Your task to perform on an android device: check out phone information Image 0: 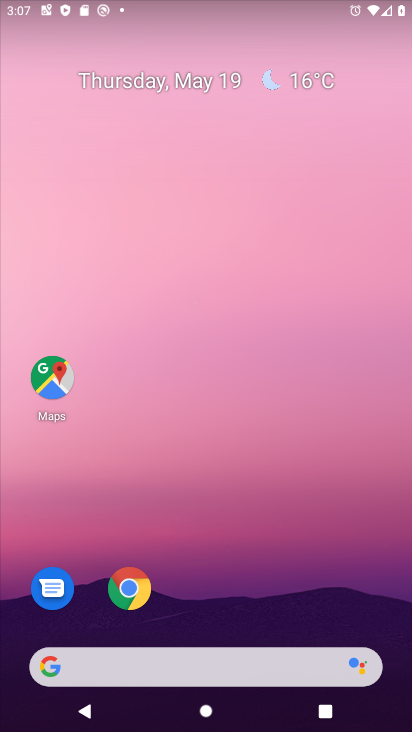
Step 0: drag from (216, 606) to (233, 160)
Your task to perform on an android device: check out phone information Image 1: 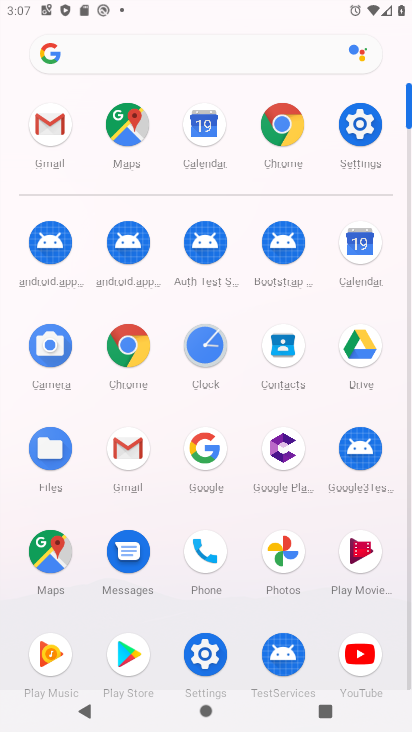
Step 1: click (192, 558)
Your task to perform on an android device: check out phone information Image 2: 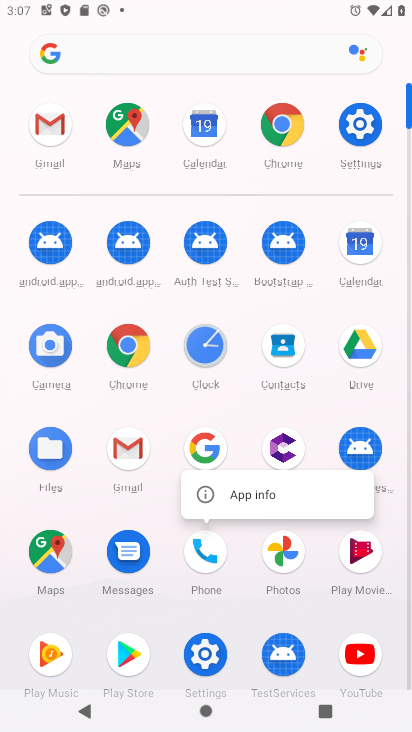
Step 2: click (245, 499)
Your task to perform on an android device: check out phone information Image 3: 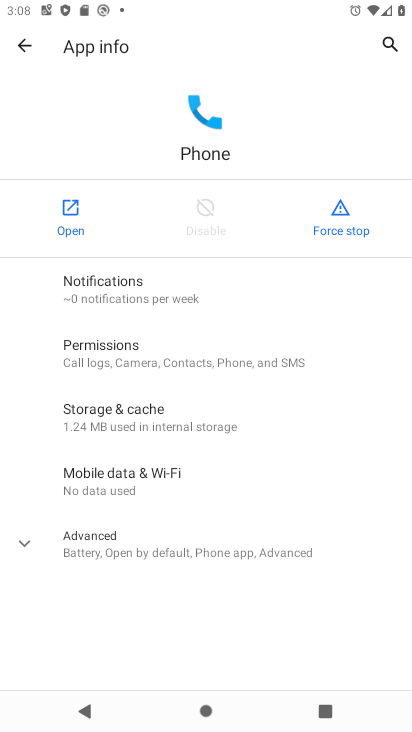
Step 3: task complete